Your task to perform on an android device: When is my next appointment? Image 0: 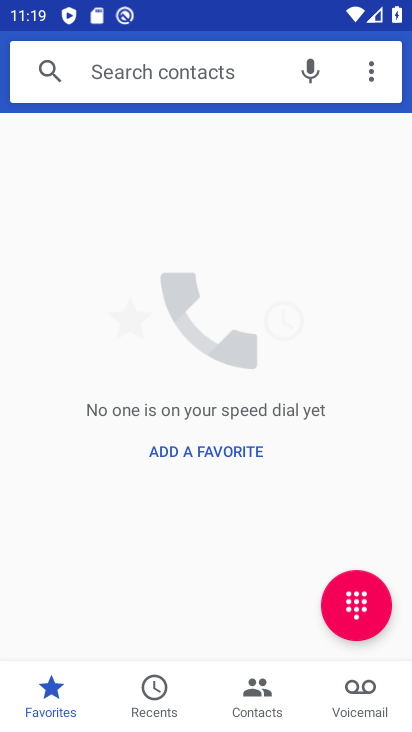
Step 0: click (75, 447)
Your task to perform on an android device: When is my next appointment? Image 1: 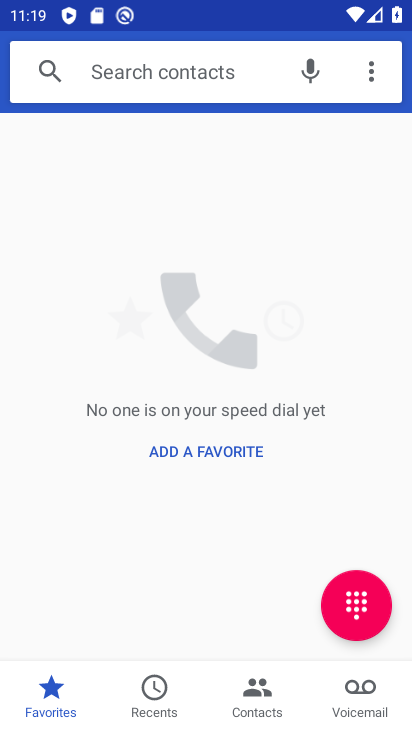
Step 1: press home button
Your task to perform on an android device: When is my next appointment? Image 2: 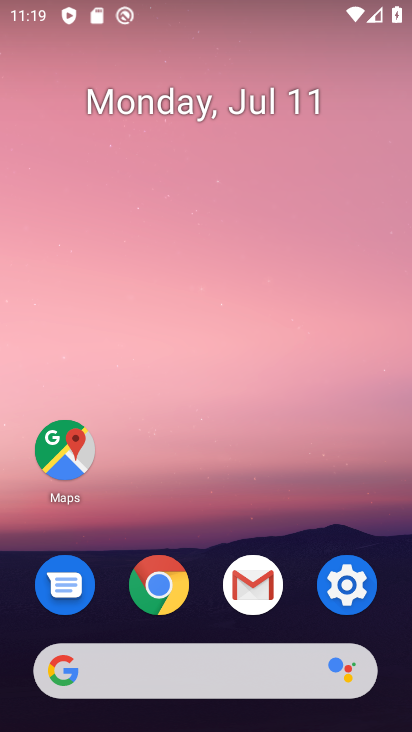
Step 2: click (64, 462)
Your task to perform on an android device: When is my next appointment? Image 3: 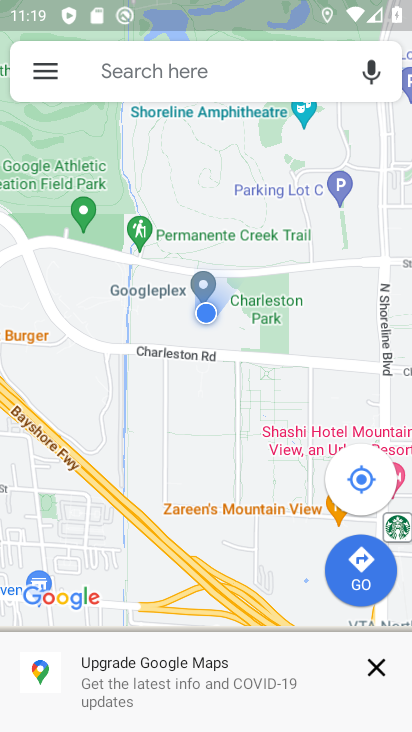
Step 3: press home button
Your task to perform on an android device: When is my next appointment? Image 4: 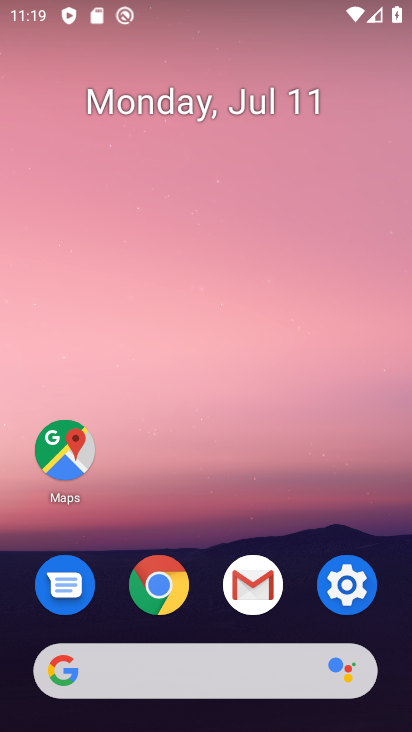
Step 4: drag from (226, 695) to (239, 197)
Your task to perform on an android device: When is my next appointment? Image 5: 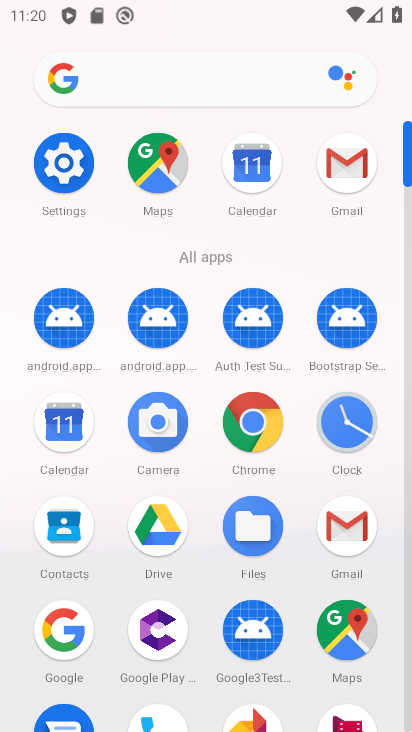
Step 5: click (67, 436)
Your task to perform on an android device: When is my next appointment? Image 6: 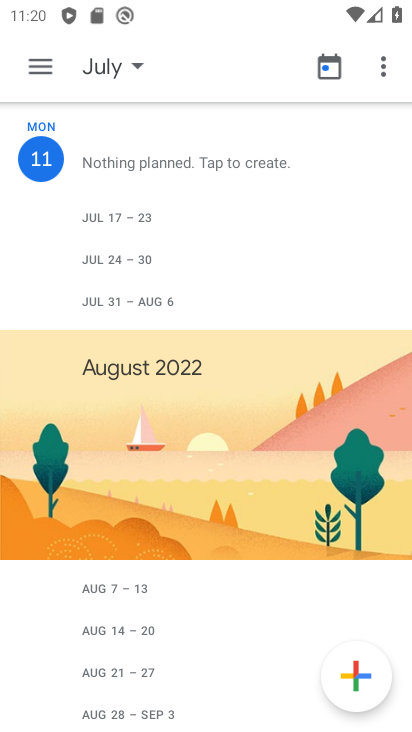
Step 6: click (42, 59)
Your task to perform on an android device: When is my next appointment? Image 7: 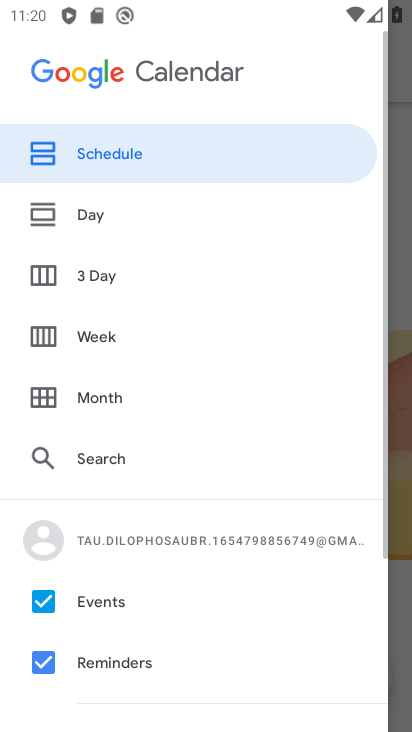
Step 7: click (132, 154)
Your task to perform on an android device: When is my next appointment? Image 8: 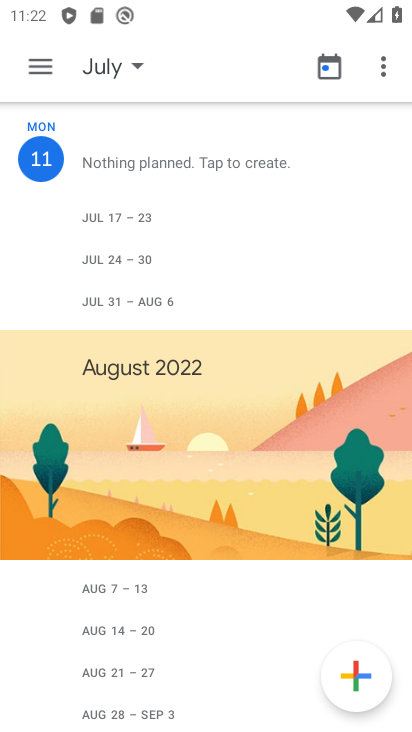
Step 8: task complete